Your task to perform on an android device: install app "Contacts" Image 0: 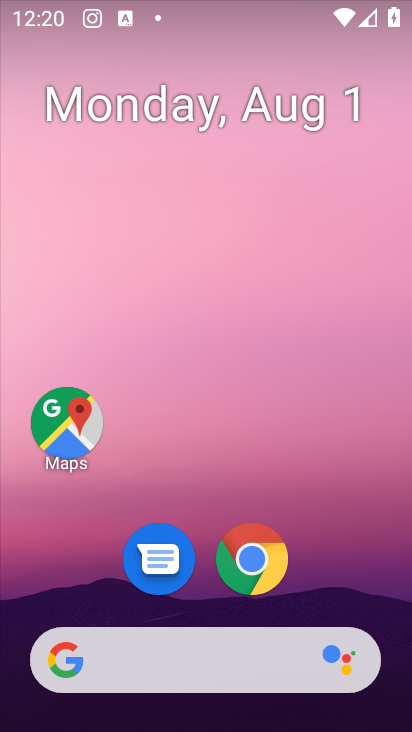
Step 0: drag from (119, 558) to (232, 65)
Your task to perform on an android device: install app "Contacts" Image 1: 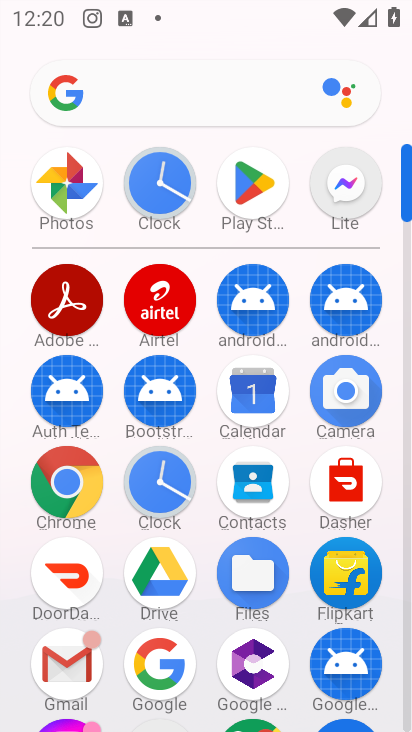
Step 1: click (276, 483)
Your task to perform on an android device: install app "Contacts" Image 2: 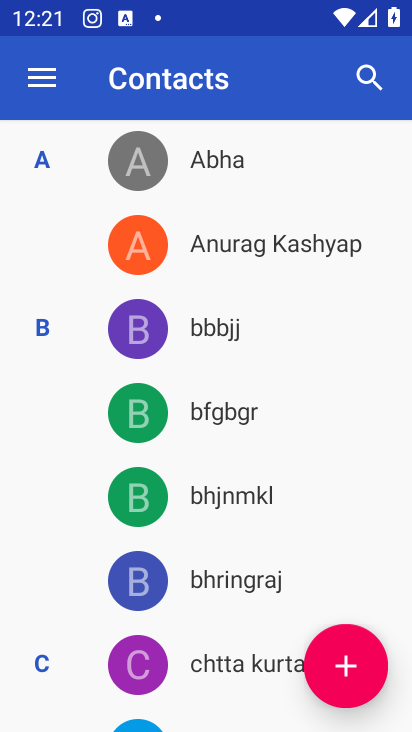
Step 2: task complete